Your task to perform on an android device: Search for pizza restaurants on Maps Image 0: 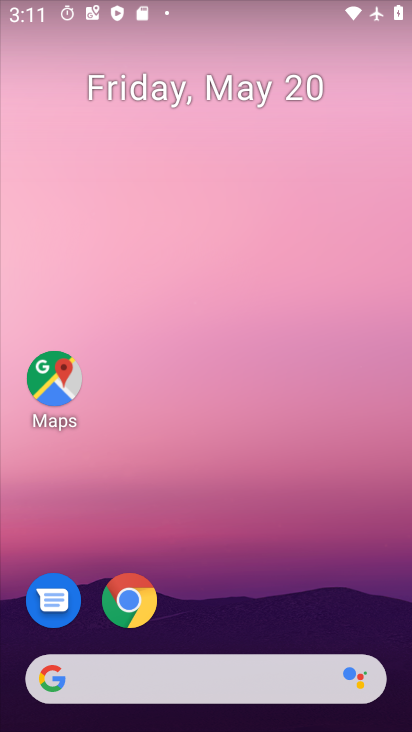
Step 0: drag from (253, 572) to (244, 12)
Your task to perform on an android device: Search for pizza restaurants on Maps Image 1: 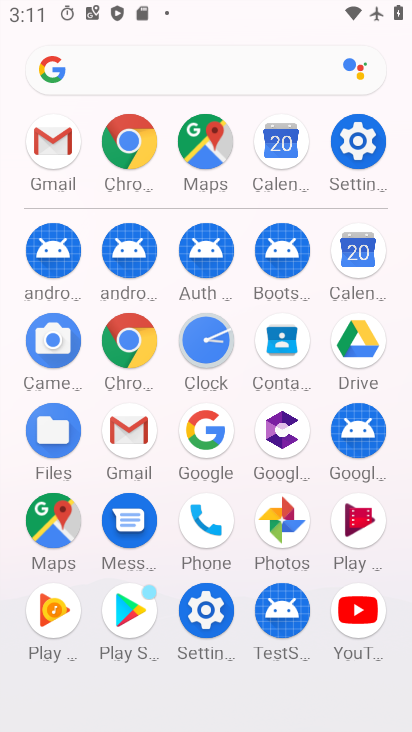
Step 1: drag from (16, 590) to (11, 286)
Your task to perform on an android device: Search for pizza restaurants on Maps Image 2: 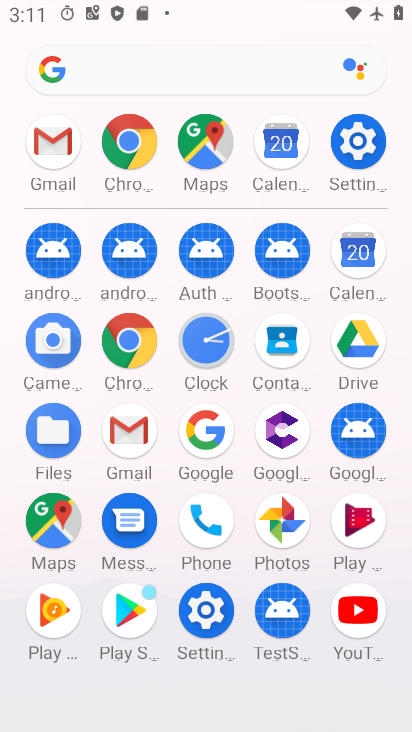
Step 2: click (50, 519)
Your task to perform on an android device: Search for pizza restaurants on Maps Image 3: 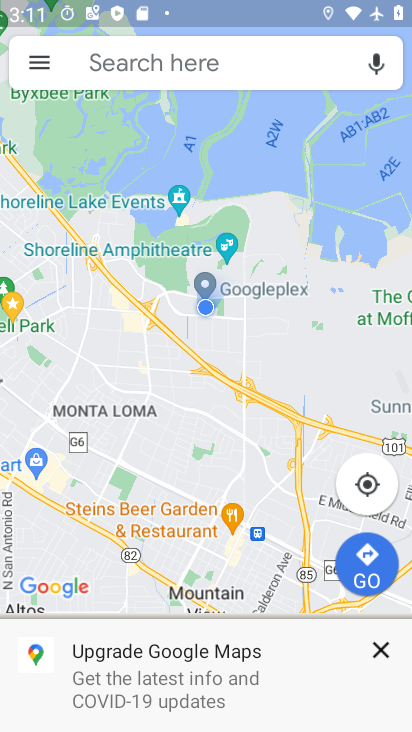
Step 3: click (218, 56)
Your task to perform on an android device: Search for pizza restaurants on Maps Image 4: 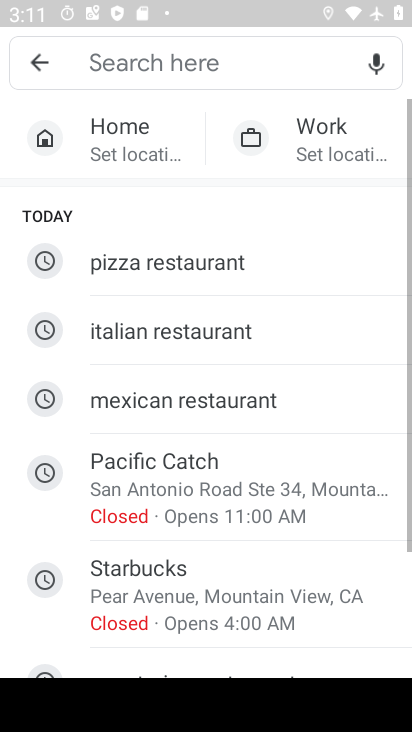
Step 4: click (192, 274)
Your task to perform on an android device: Search for pizza restaurants on Maps Image 5: 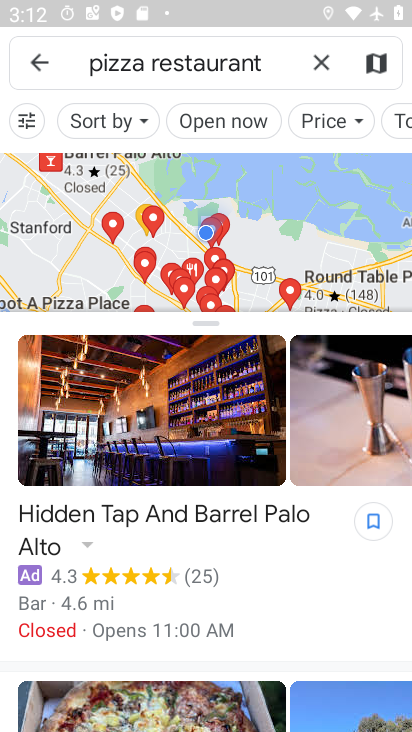
Step 5: task complete